Your task to perform on an android device: Open the map Image 0: 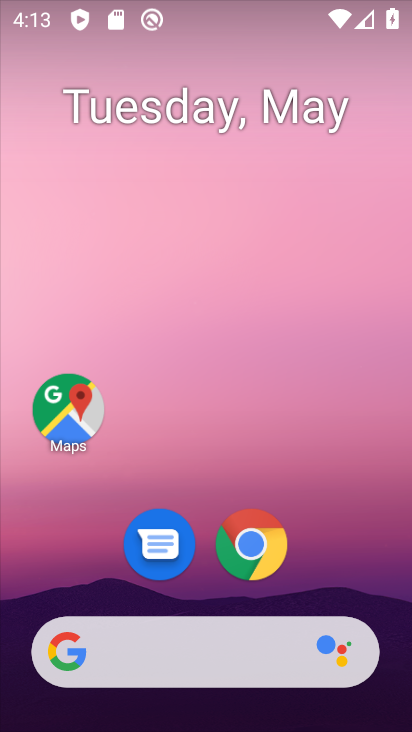
Step 0: click (44, 417)
Your task to perform on an android device: Open the map Image 1: 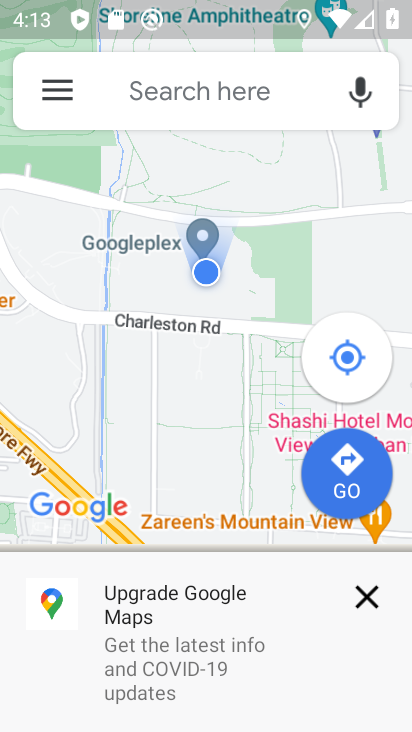
Step 1: task complete